Your task to perform on an android device: Show me recent news Image 0: 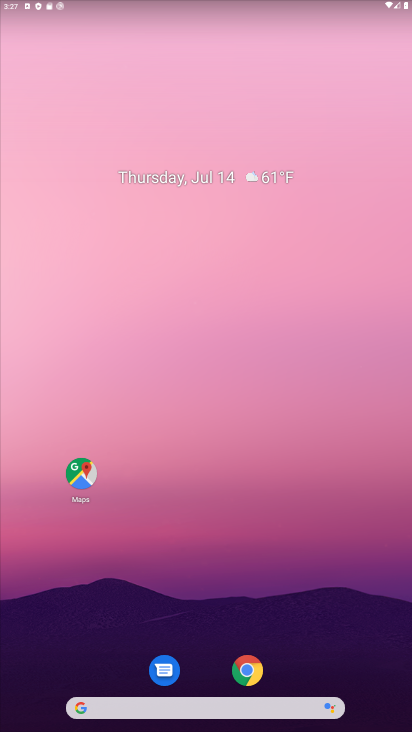
Step 0: click (88, 403)
Your task to perform on an android device: Show me recent news Image 1: 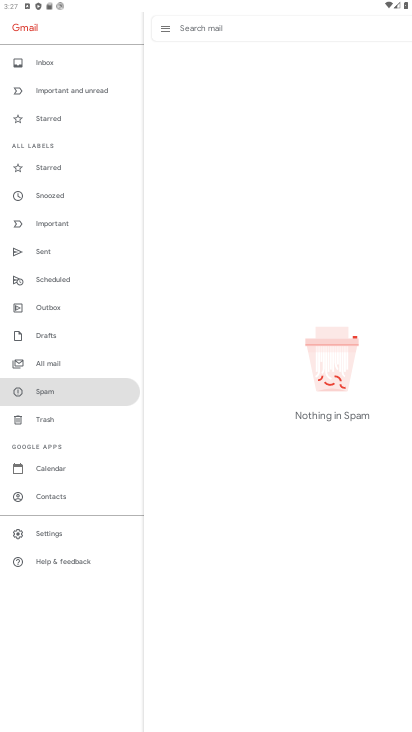
Step 1: press home button
Your task to perform on an android device: Show me recent news Image 2: 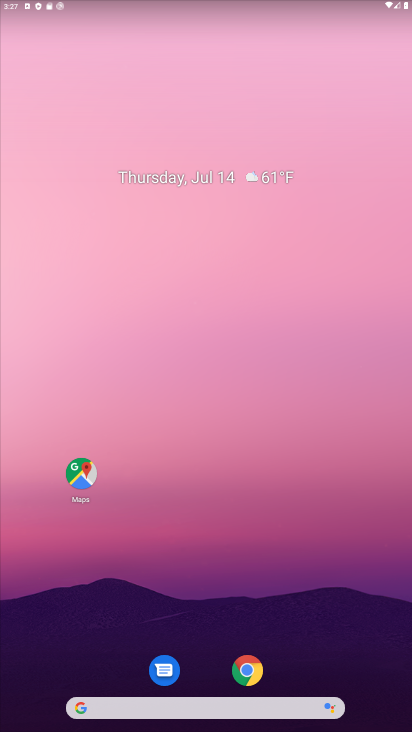
Step 2: click (120, 708)
Your task to perform on an android device: Show me recent news Image 3: 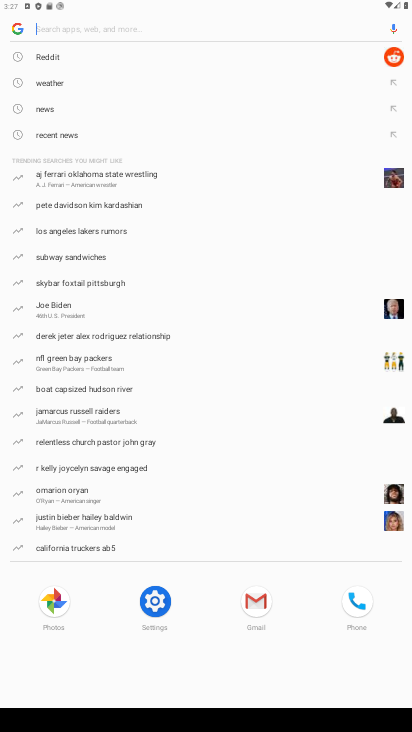
Step 3: click (21, 26)
Your task to perform on an android device: Show me recent news Image 4: 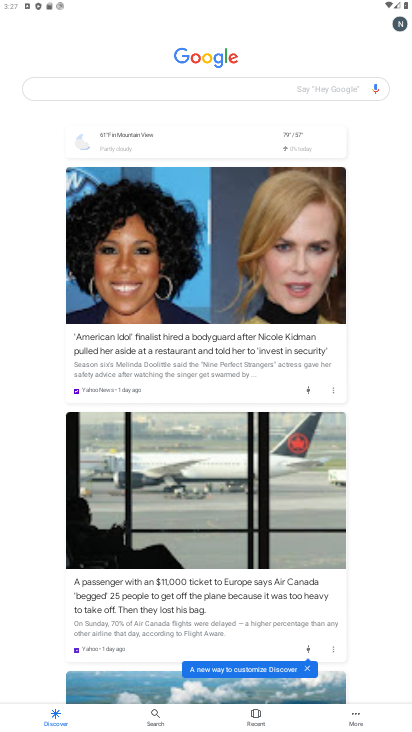
Step 4: task complete